Your task to perform on an android device: Open Chrome and go to settings Image 0: 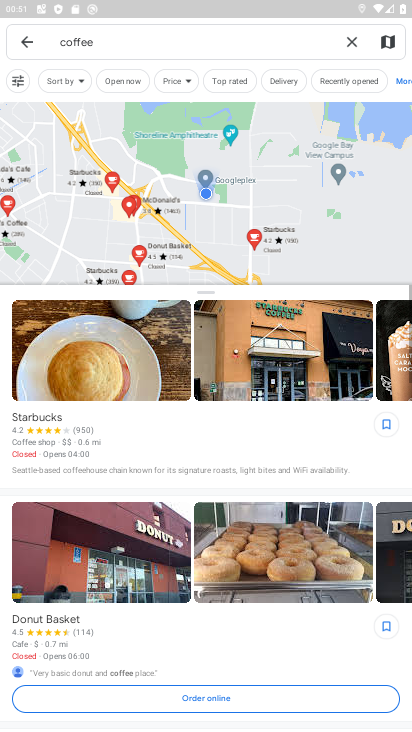
Step 0: press home button
Your task to perform on an android device: Open Chrome and go to settings Image 1: 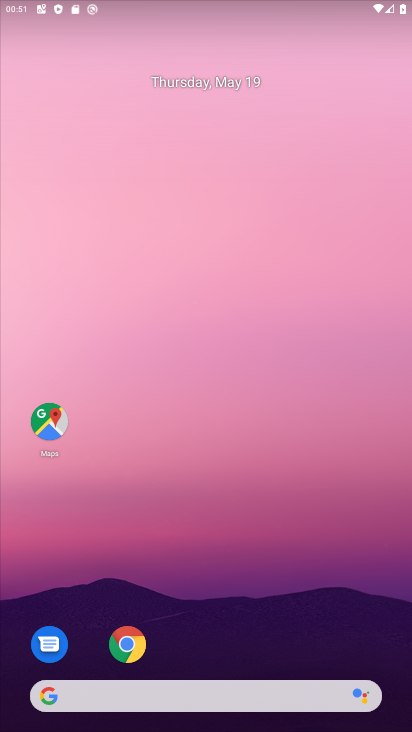
Step 1: drag from (384, 620) to (349, 189)
Your task to perform on an android device: Open Chrome and go to settings Image 2: 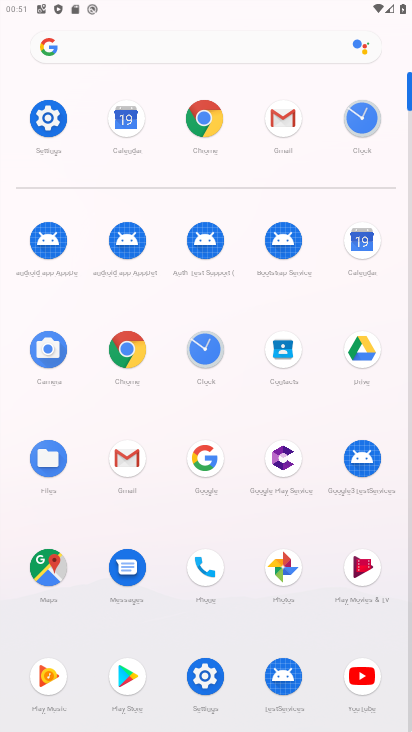
Step 2: click (125, 359)
Your task to perform on an android device: Open Chrome and go to settings Image 3: 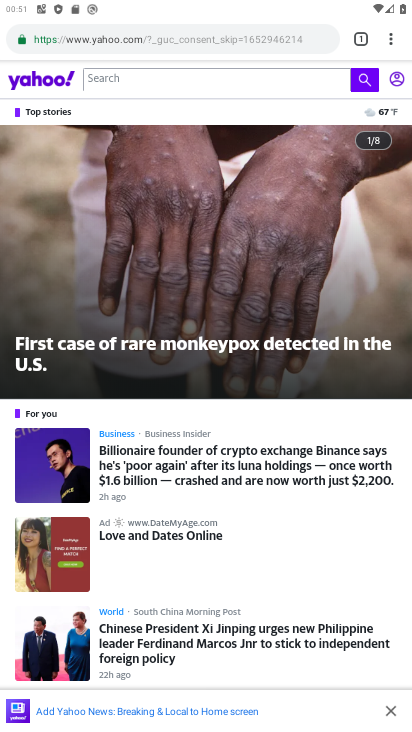
Step 3: task complete